Your task to perform on an android device: turn on notifications settings in the gmail app Image 0: 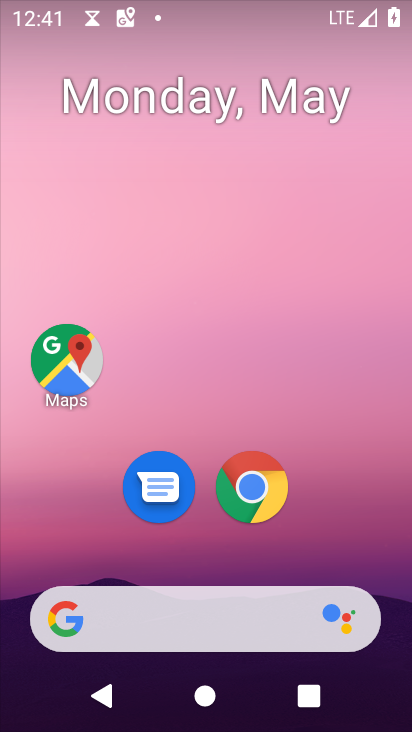
Step 0: drag from (346, 562) to (339, 7)
Your task to perform on an android device: turn on notifications settings in the gmail app Image 1: 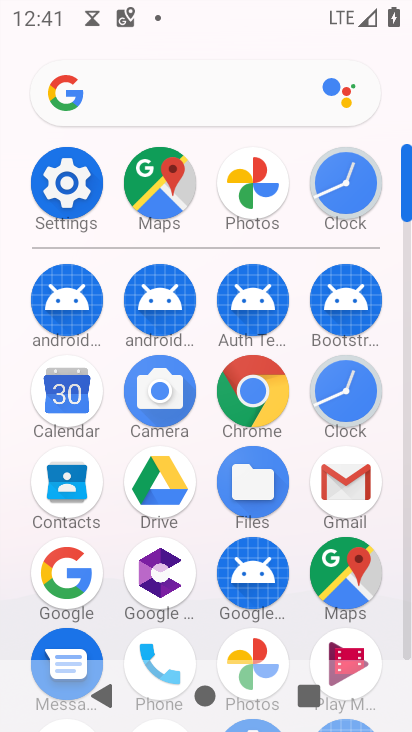
Step 1: click (342, 486)
Your task to perform on an android device: turn on notifications settings in the gmail app Image 2: 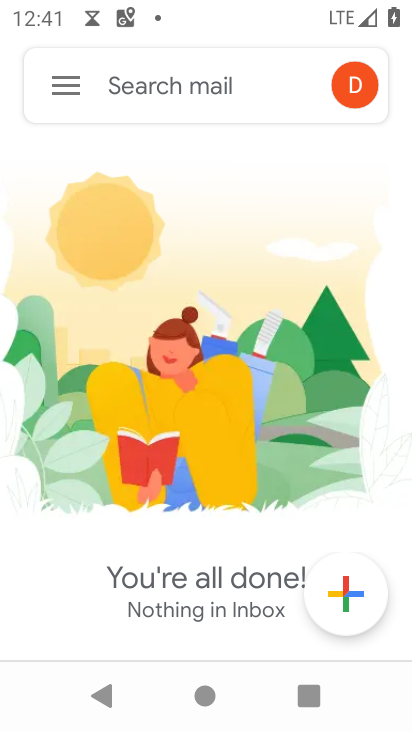
Step 2: click (75, 85)
Your task to perform on an android device: turn on notifications settings in the gmail app Image 3: 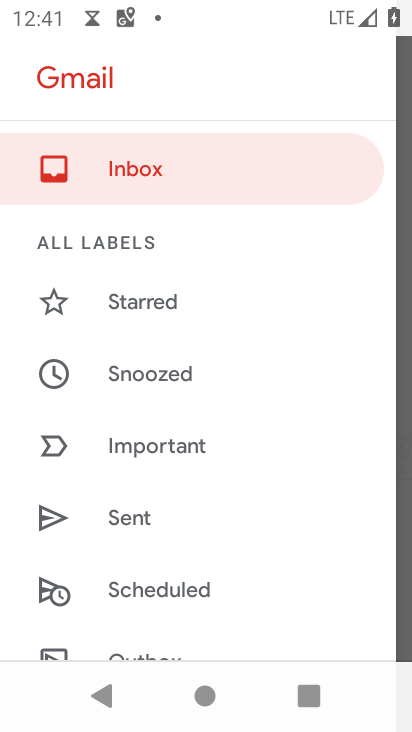
Step 3: drag from (167, 588) to (130, 160)
Your task to perform on an android device: turn on notifications settings in the gmail app Image 4: 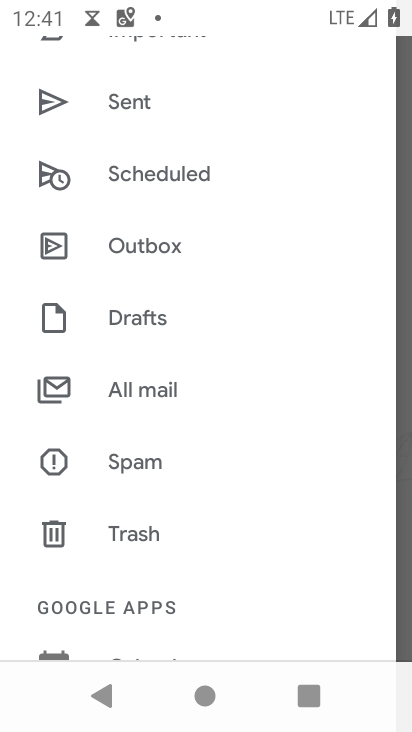
Step 4: drag from (184, 553) to (190, 12)
Your task to perform on an android device: turn on notifications settings in the gmail app Image 5: 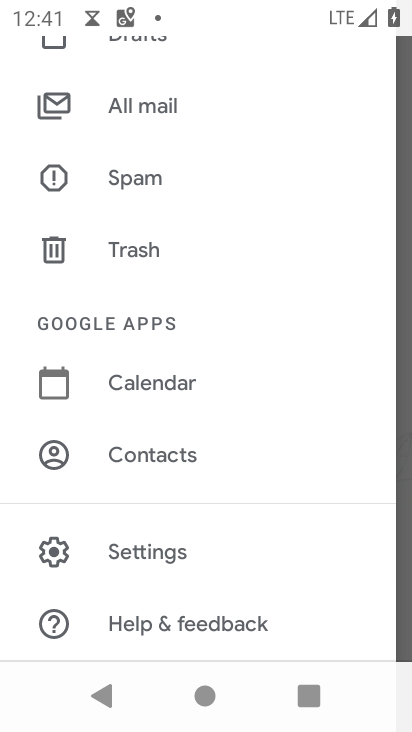
Step 5: click (151, 550)
Your task to perform on an android device: turn on notifications settings in the gmail app Image 6: 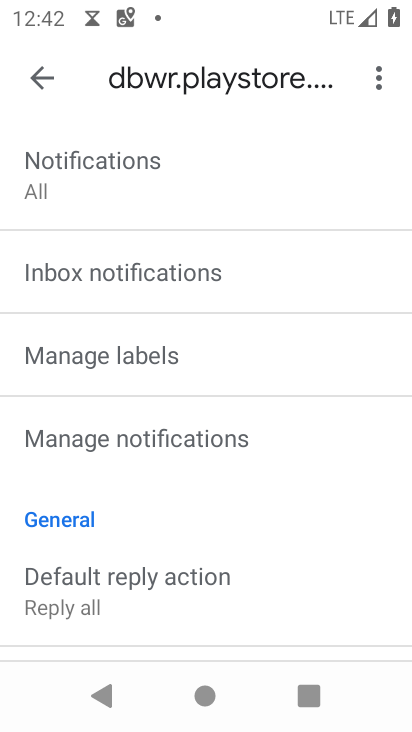
Step 6: click (155, 427)
Your task to perform on an android device: turn on notifications settings in the gmail app Image 7: 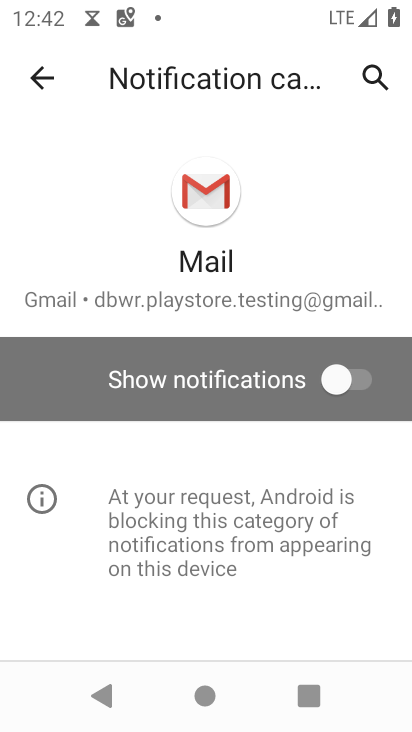
Step 7: click (374, 386)
Your task to perform on an android device: turn on notifications settings in the gmail app Image 8: 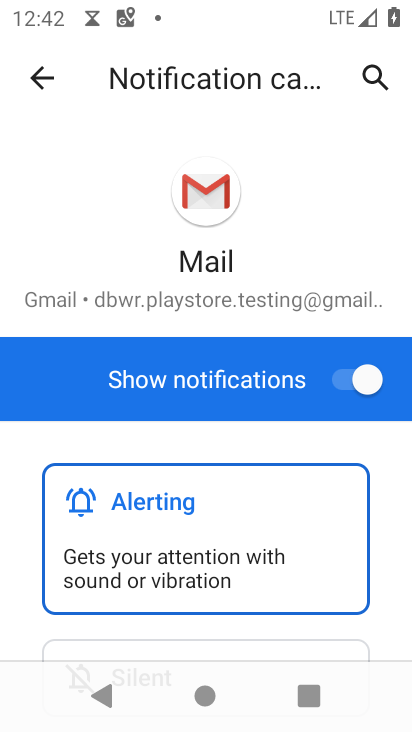
Step 8: task complete